Your task to perform on an android device: check battery use Image 0: 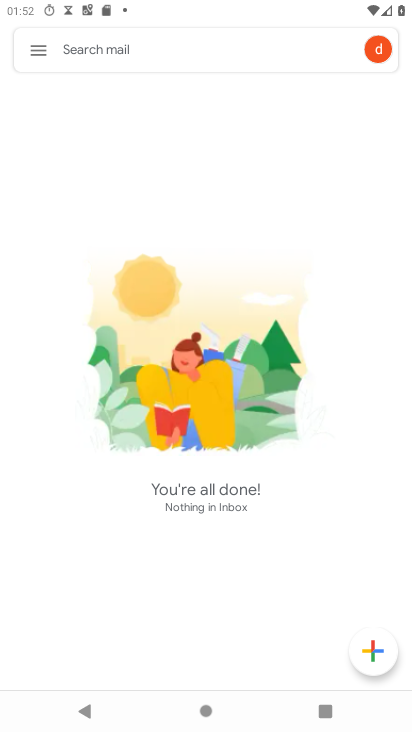
Step 0: press home button
Your task to perform on an android device: check battery use Image 1: 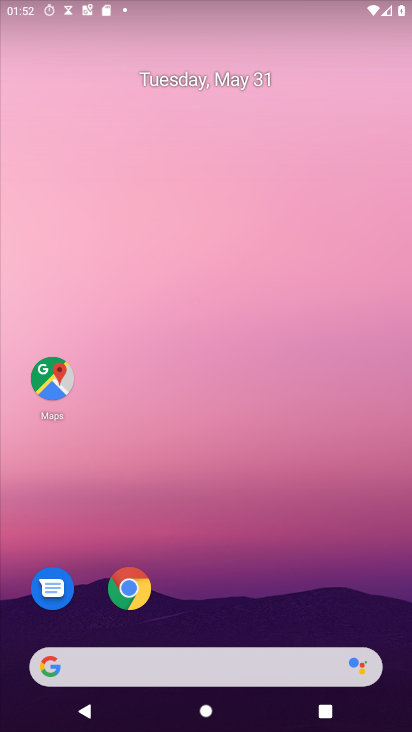
Step 1: drag from (243, 648) to (249, 11)
Your task to perform on an android device: check battery use Image 2: 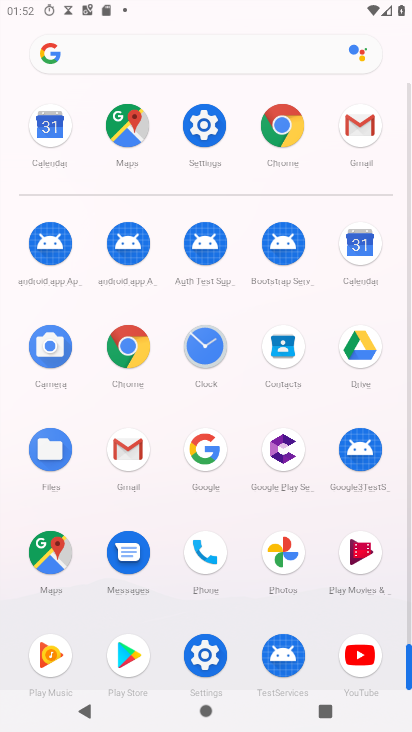
Step 2: click (220, 118)
Your task to perform on an android device: check battery use Image 3: 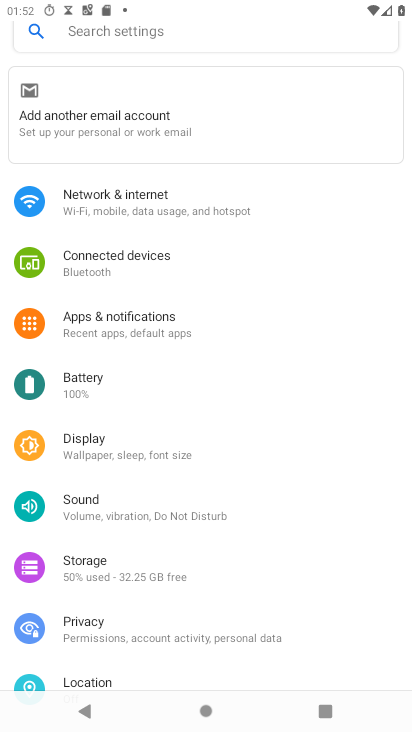
Step 3: click (123, 397)
Your task to perform on an android device: check battery use Image 4: 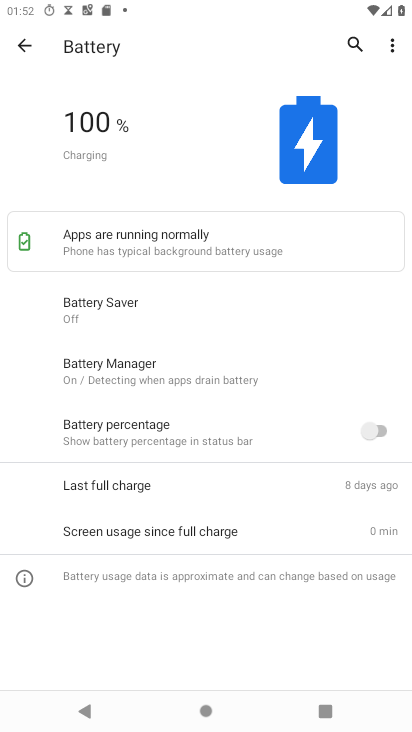
Step 4: task complete